Your task to perform on an android device: Open the calendar and show me this week's events? Image 0: 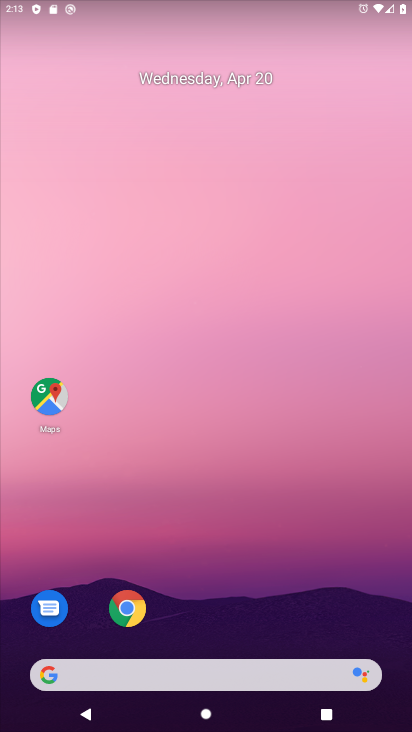
Step 0: drag from (278, 578) to (325, 78)
Your task to perform on an android device: Open the calendar and show me this week's events? Image 1: 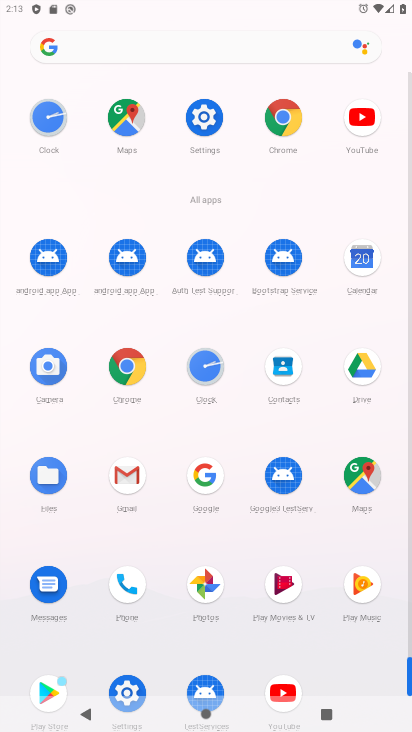
Step 1: click (349, 268)
Your task to perform on an android device: Open the calendar and show me this week's events? Image 2: 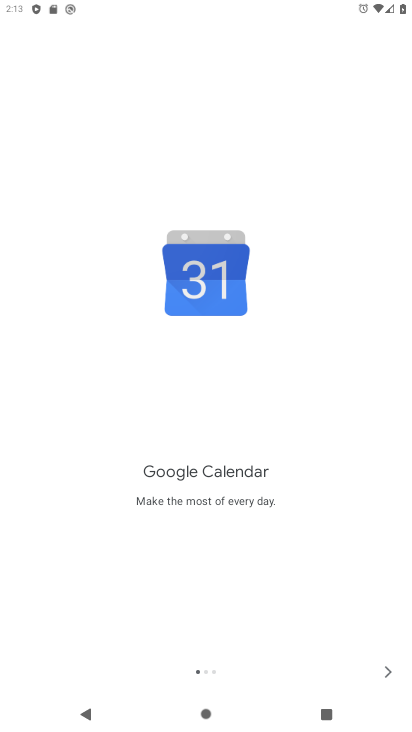
Step 2: click (386, 660)
Your task to perform on an android device: Open the calendar and show me this week's events? Image 3: 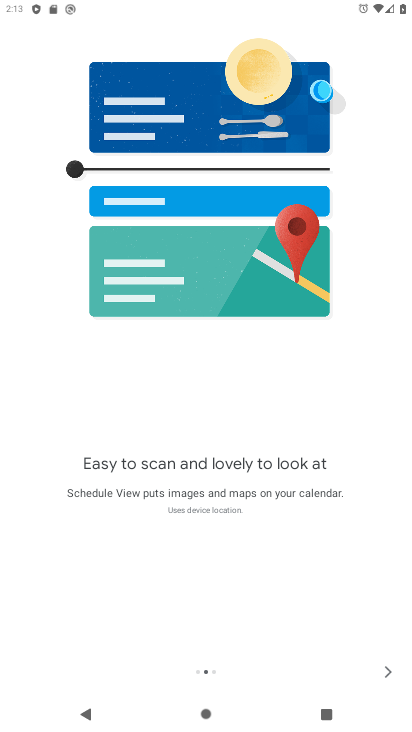
Step 3: click (386, 674)
Your task to perform on an android device: Open the calendar and show me this week's events? Image 4: 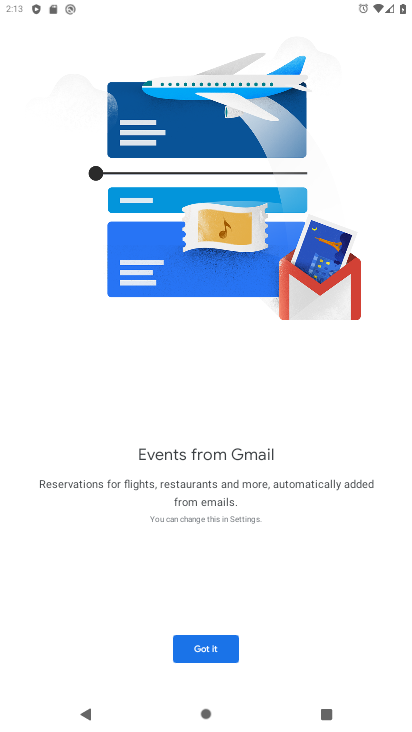
Step 4: click (225, 651)
Your task to perform on an android device: Open the calendar and show me this week's events? Image 5: 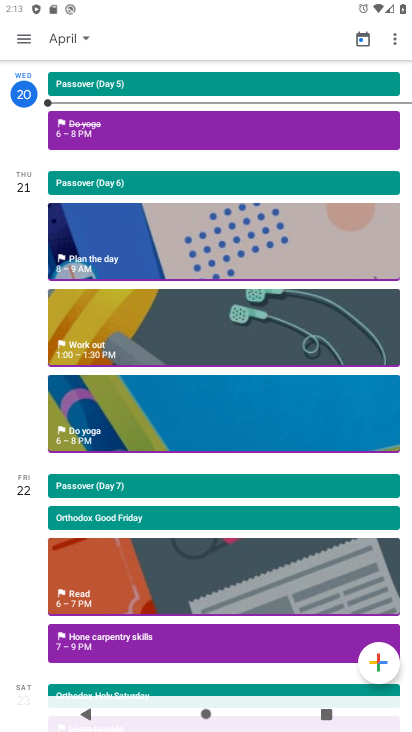
Step 5: click (57, 40)
Your task to perform on an android device: Open the calendar and show me this week's events? Image 6: 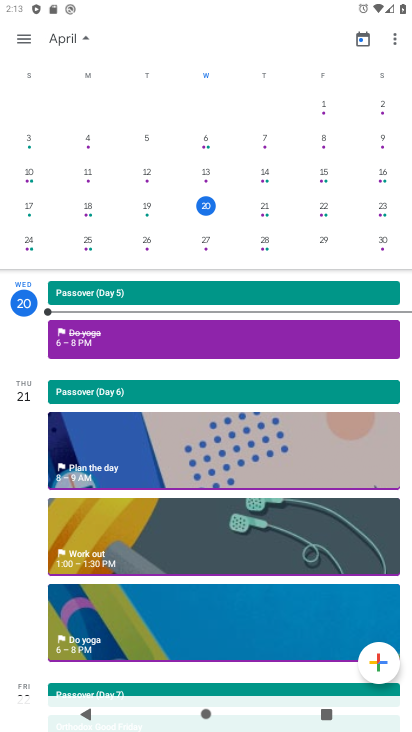
Step 6: click (270, 212)
Your task to perform on an android device: Open the calendar and show me this week's events? Image 7: 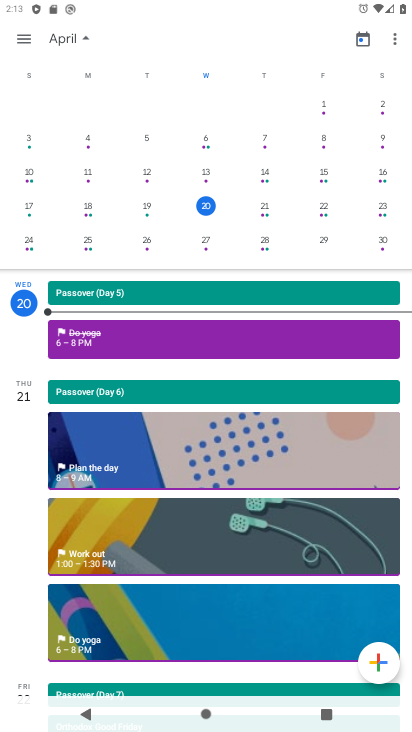
Step 7: click (266, 204)
Your task to perform on an android device: Open the calendar and show me this week's events? Image 8: 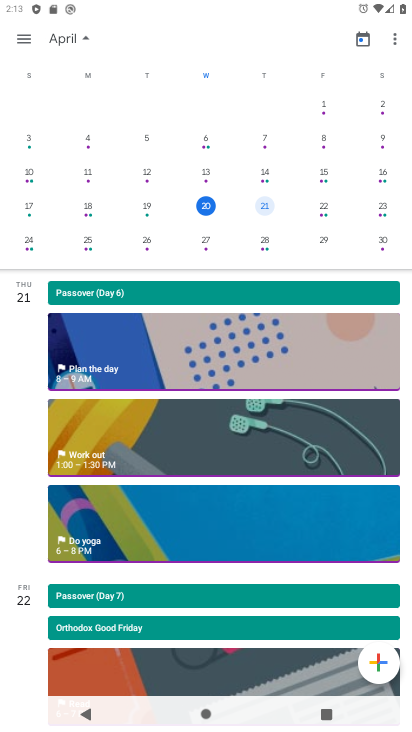
Step 8: click (326, 207)
Your task to perform on an android device: Open the calendar and show me this week's events? Image 9: 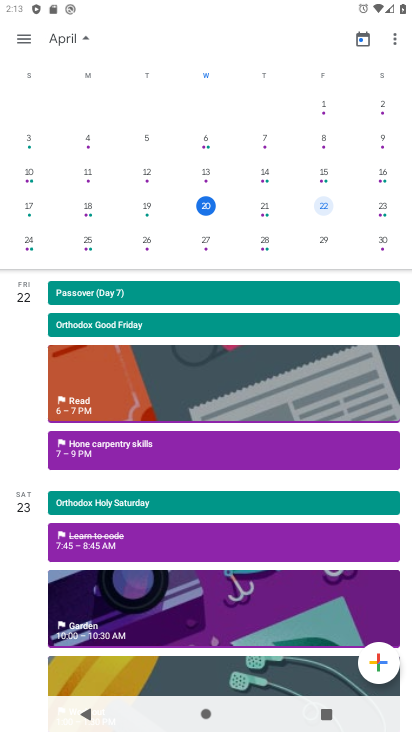
Step 9: click (380, 216)
Your task to perform on an android device: Open the calendar and show me this week's events? Image 10: 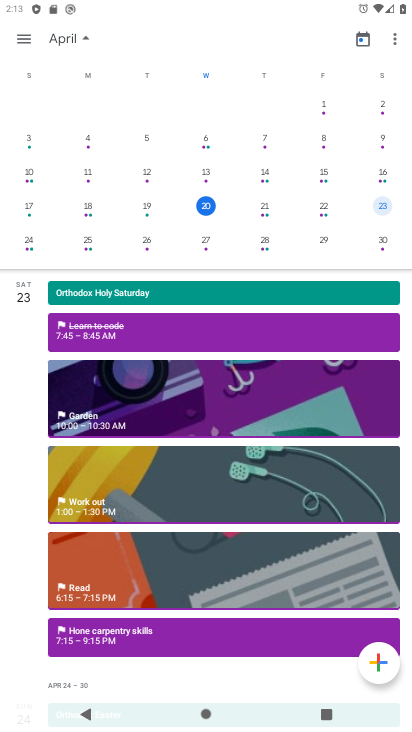
Step 10: task complete